Your task to perform on an android device: turn off sleep mode Image 0: 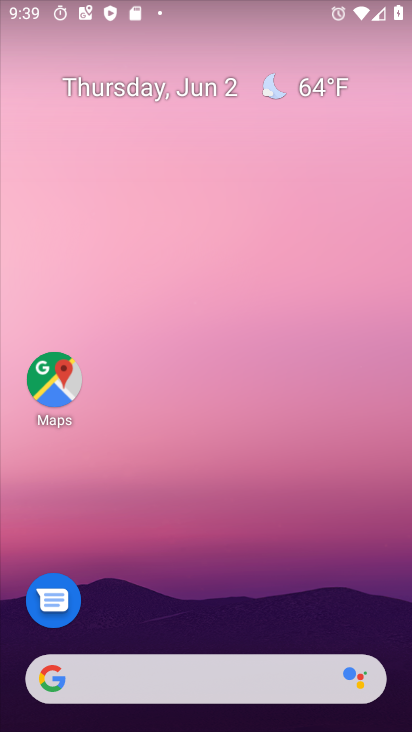
Step 0: drag from (180, 588) to (160, 53)
Your task to perform on an android device: turn off sleep mode Image 1: 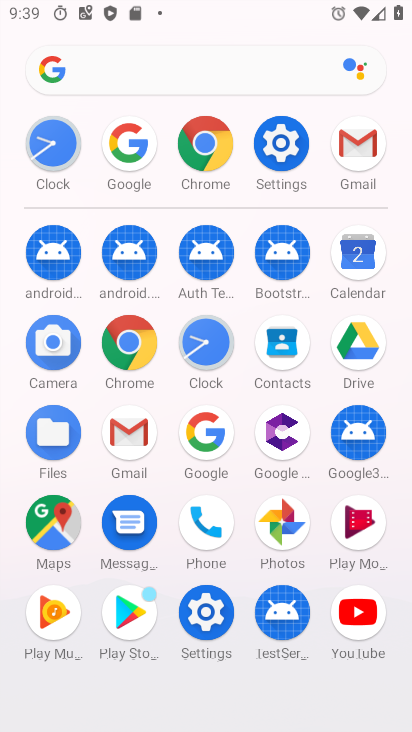
Step 1: click (203, 615)
Your task to perform on an android device: turn off sleep mode Image 2: 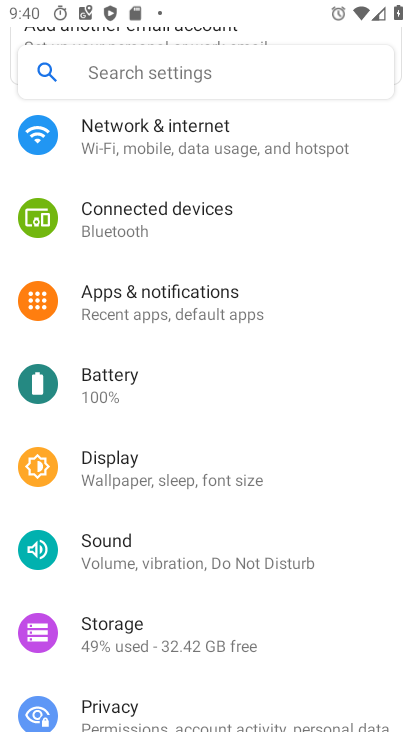
Step 2: click (179, 473)
Your task to perform on an android device: turn off sleep mode Image 3: 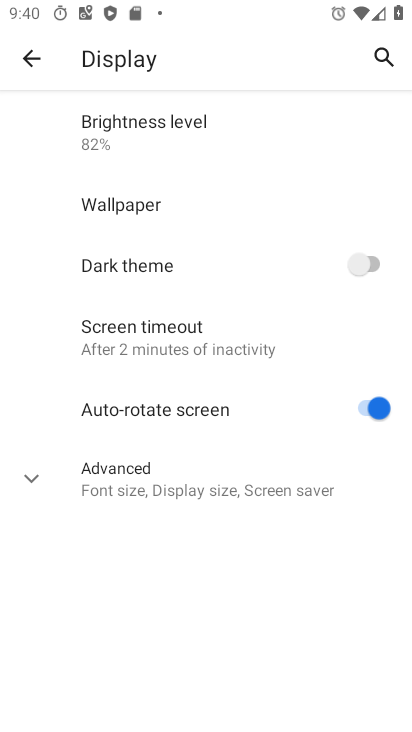
Step 3: click (136, 334)
Your task to perform on an android device: turn off sleep mode Image 4: 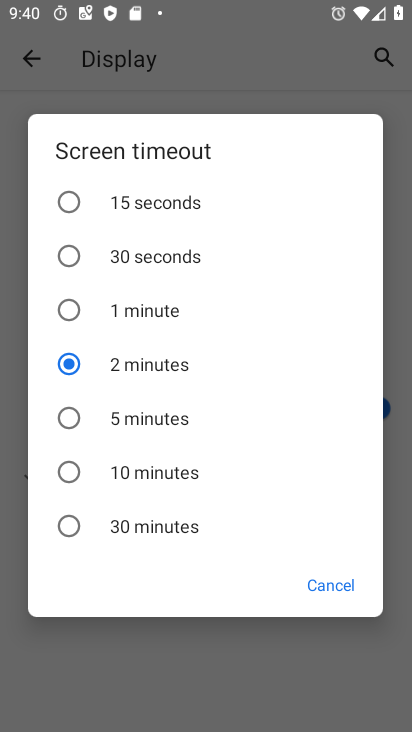
Step 4: task complete